Your task to perform on an android device: Search for Italian restaurants on Maps Image 0: 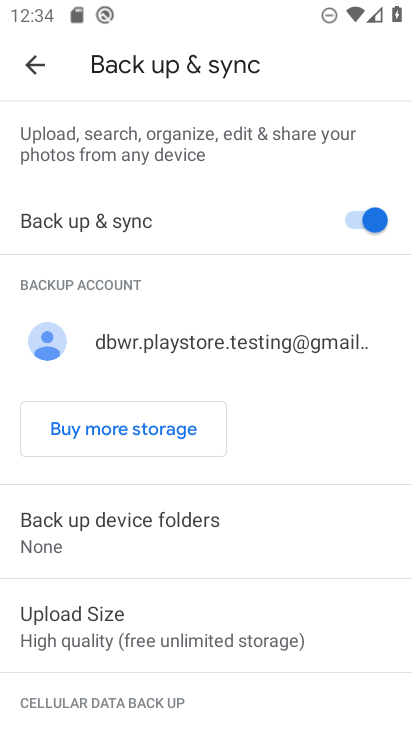
Step 0: press back button
Your task to perform on an android device: Search for Italian restaurants on Maps Image 1: 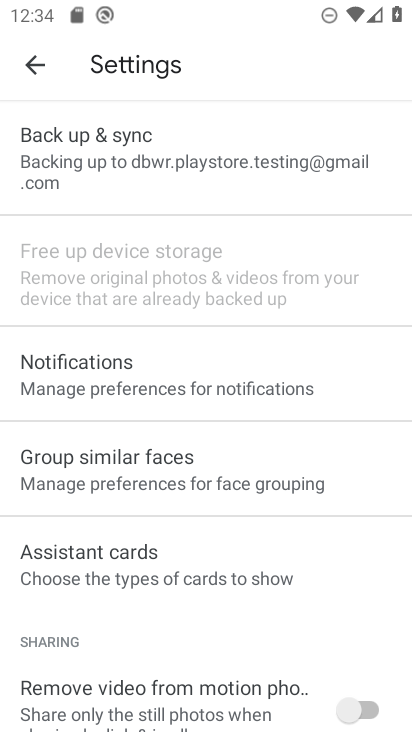
Step 1: press home button
Your task to perform on an android device: Search for Italian restaurants on Maps Image 2: 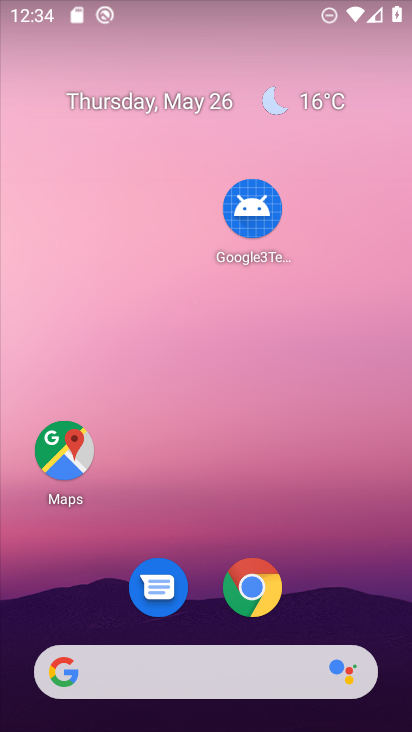
Step 2: click (78, 473)
Your task to perform on an android device: Search for Italian restaurants on Maps Image 3: 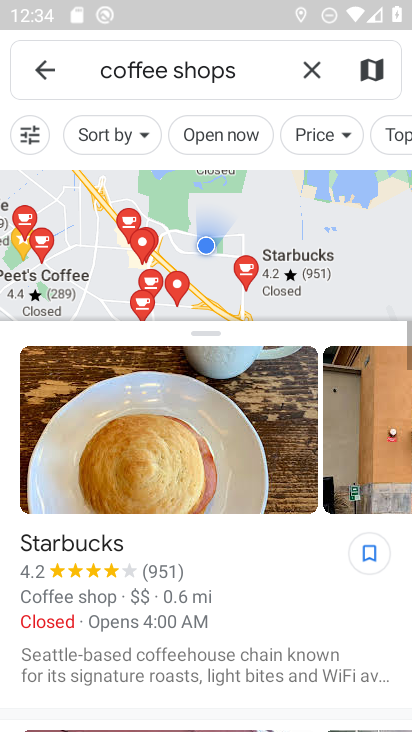
Step 3: click (315, 61)
Your task to perform on an android device: Search for Italian restaurants on Maps Image 4: 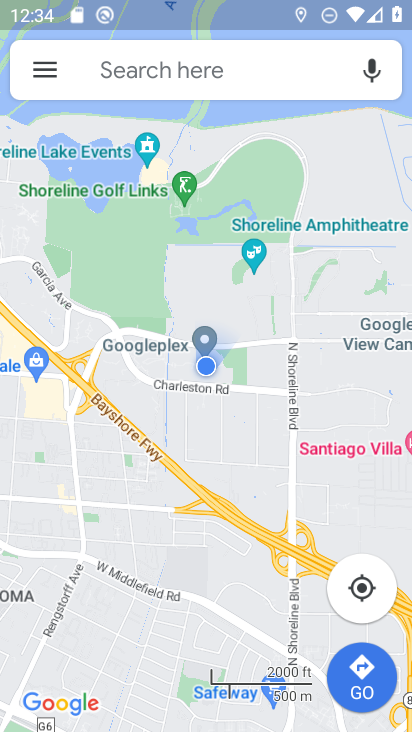
Step 4: click (171, 68)
Your task to perform on an android device: Search for Italian restaurants on Maps Image 5: 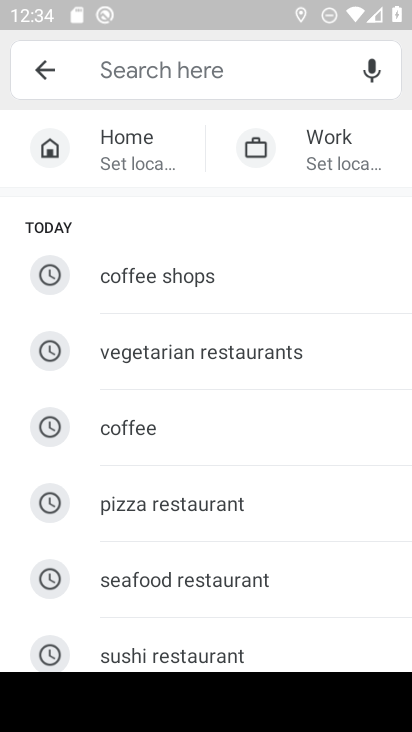
Step 5: type "italian restaurants"
Your task to perform on an android device: Search for Italian restaurants on Maps Image 6: 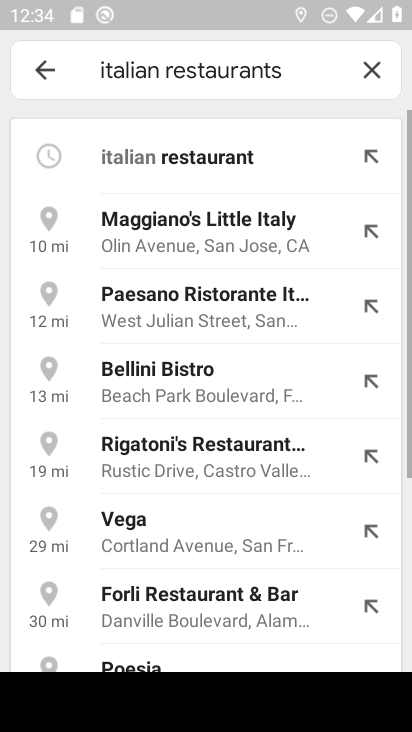
Step 6: click (167, 158)
Your task to perform on an android device: Search for Italian restaurants on Maps Image 7: 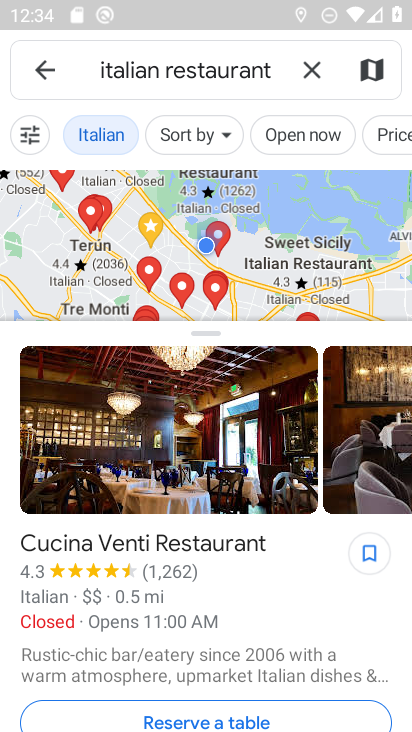
Step 7: task complete